Your task to perform on an android device: Go to wifi settings Image 0: 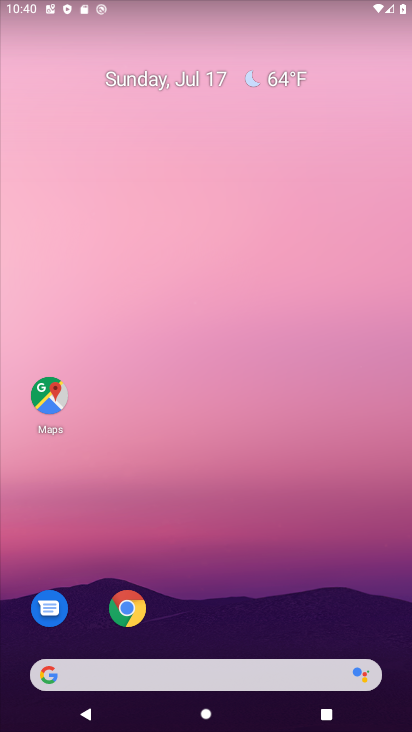
Step 0: drag from (36, 711) to (228, 365)
Your task to perform on an android device: Go to wifi settings Image 1: 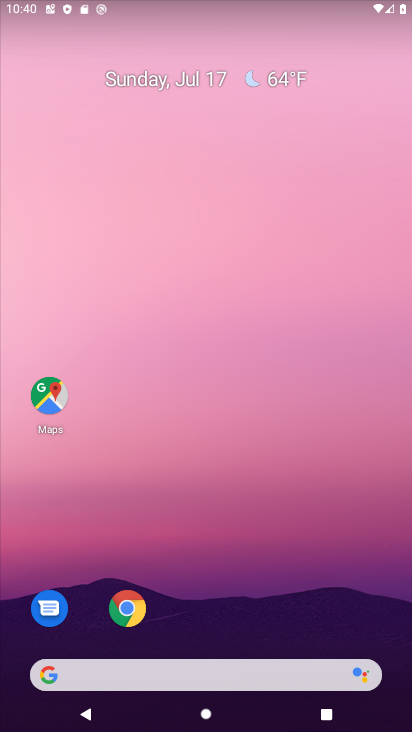
Step 1: drag from (42, 705) to (372, 82)
Your task to perform on an android device: Go to wifi settings Image 2: 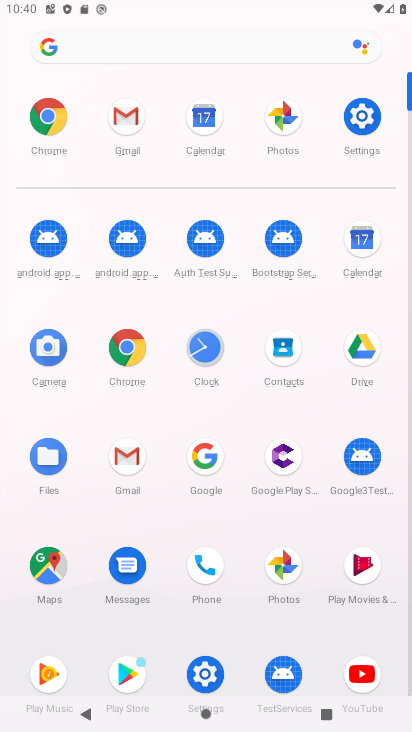
Step 2: click (193, 661)
Your task to perform on an android device: Go to wifi settings Image 3: 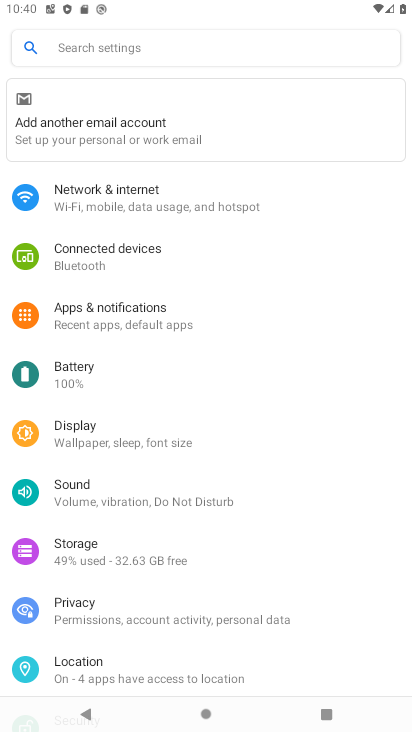
Step 3: click (57, 192)
Your task to perform on an android device: Go to wifi settings Image 4: 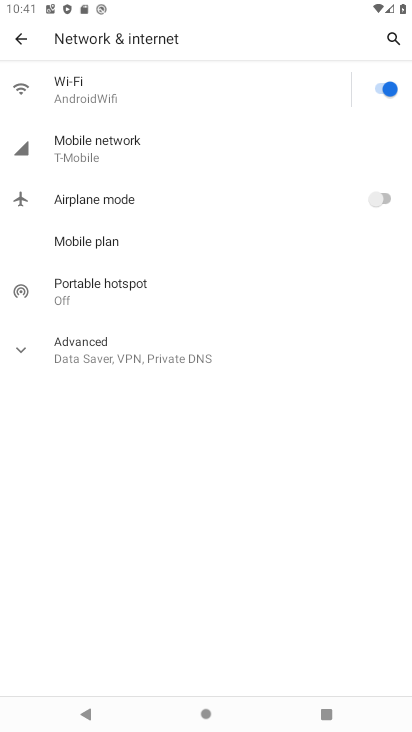
Step 4: task complete